Your task to perform on an android device: turn off javascript in the chrome app Image 0: 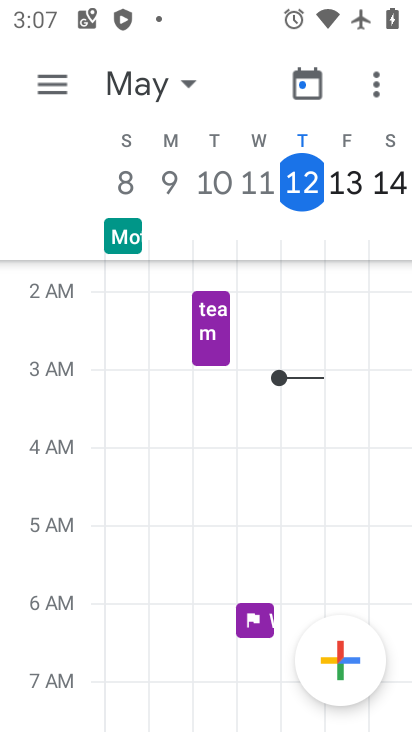
Step 0: press home button
Your task to perform on an android device: turn off javascript in the chrome app Image 1: 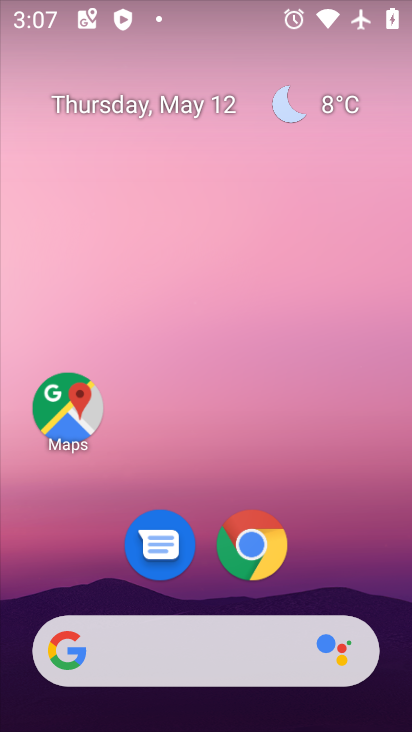
Step 1: click (246, 548)
Your task to perform on an android device: turn off javascript in the chrome app Image 2: 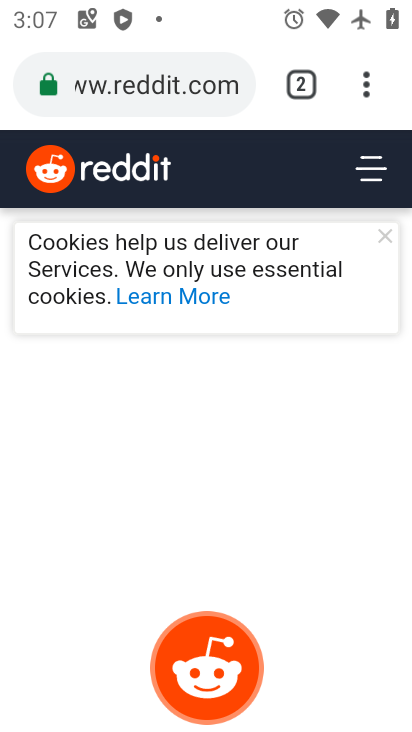
Step 2: click (364, 90)
Your task to perform on an android device: turn off javascript in the chrome app Image 3: 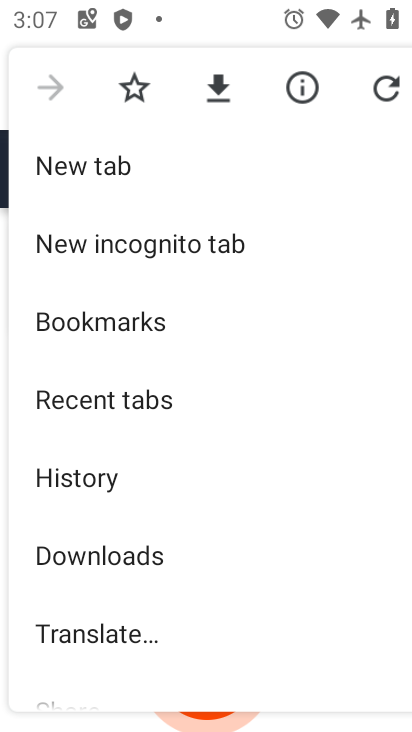
Step 3: drag from (195, 631) to (266, 294)
Your task to perform on an android device: turn off javascript in the chrome app Image 4: 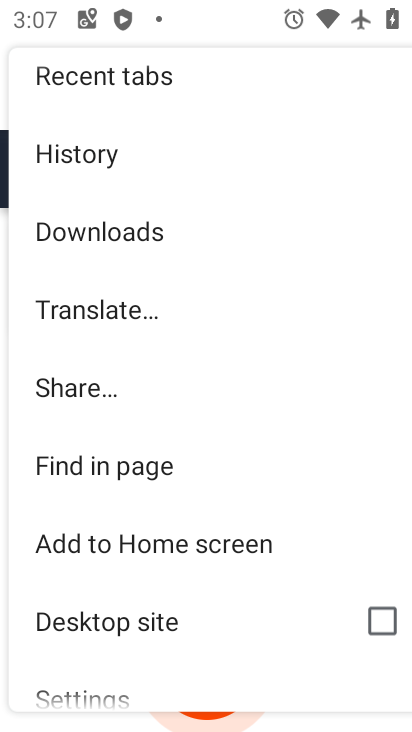
Step 4: drag from (249, 594) to (297, 226)
Your task to perform on an android device: turn off javascript in the chrome app Image 5: 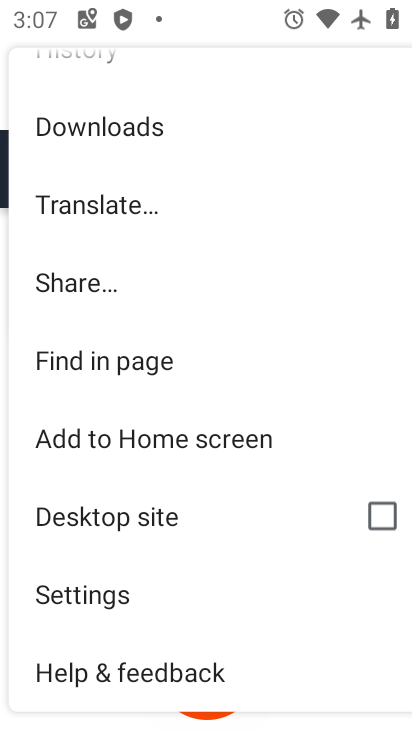
Step 5: click (85, 597)
Your task to perform on an android device: turn off javascript in the chrome app Image 6: 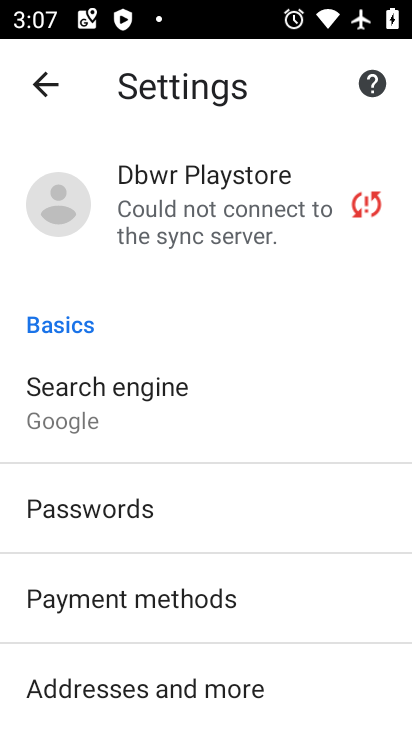
Step 6: drag from (315, 647) to (235, 168)
Your task to perform on an android device: turn off javascript in the chrome app Image 7: 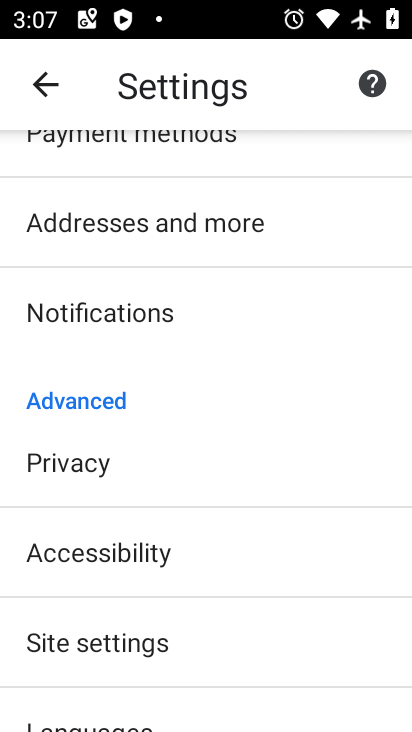
Step 7: drag from (219, 648) to (259, 179)
Your task to perform on an android device: turn off javascript in the chrome app Image 8: 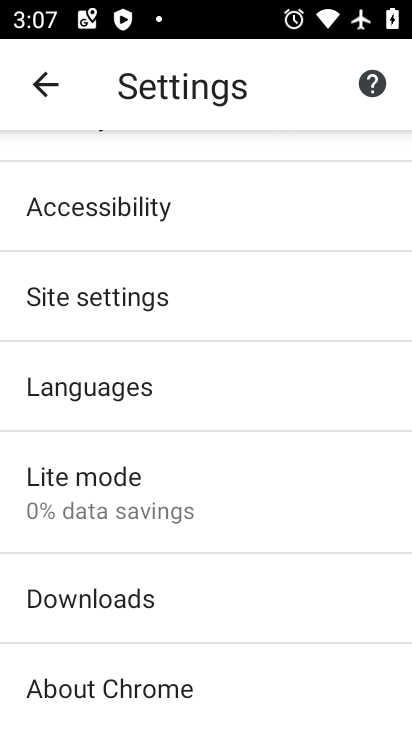
Step 8: click (46, 291)
Your task to perform on an android device: turn off javascript in the chrome app Image 9: 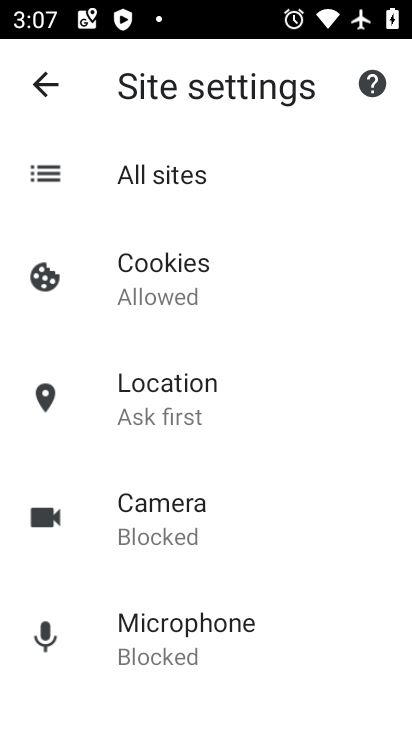
Step 9: drag from (284, 613) to (271, 198)
Your task to perform on an android device: turn off javascript in the chrome app Image 10: 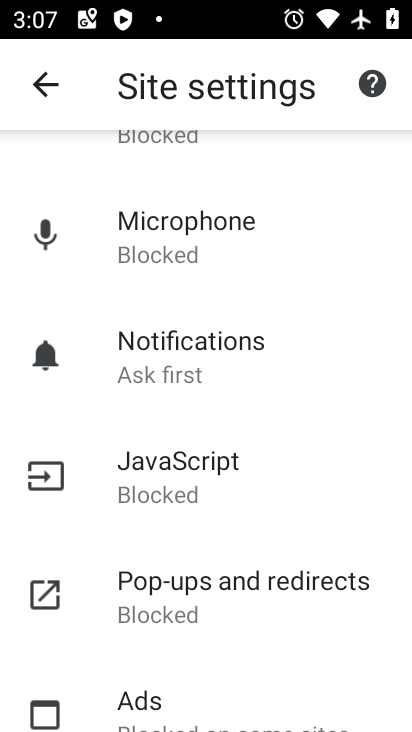
Step 10: click (166, 469)
Your task to perform on an android device: turn off javascript in the chrome app Image 11: 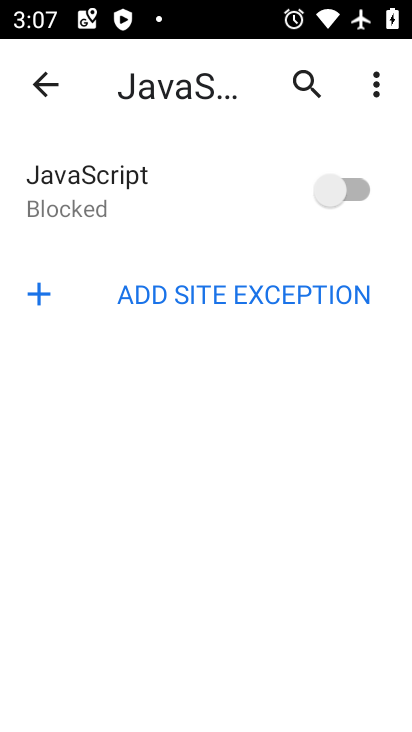
Step 11: task complete